Your task to perform on an android device: stop showing notifications on the lock screen Image 0: 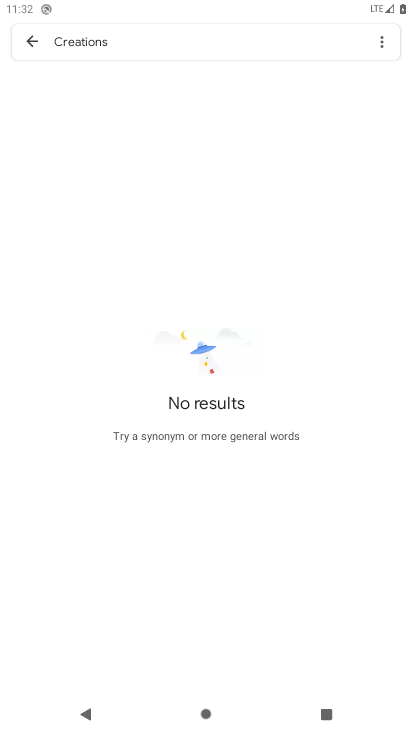
Step 0: press home button
Your task to perform on an android device: stop showing notifications on the lock screen Image 1: 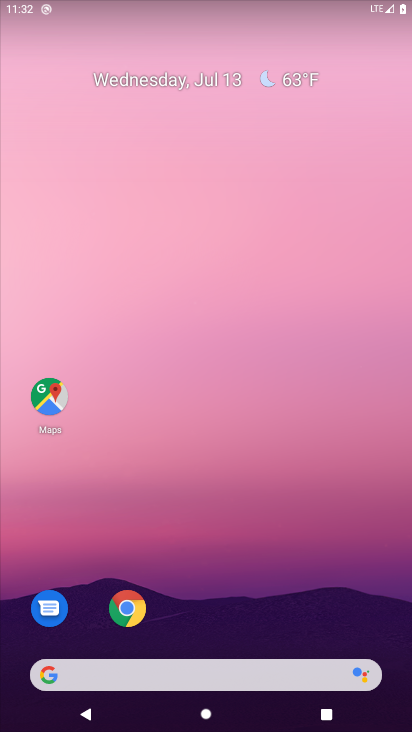
Step 1: press home button
Your task to perform on an android device: stop showing notifications on the lock screen Image 2: 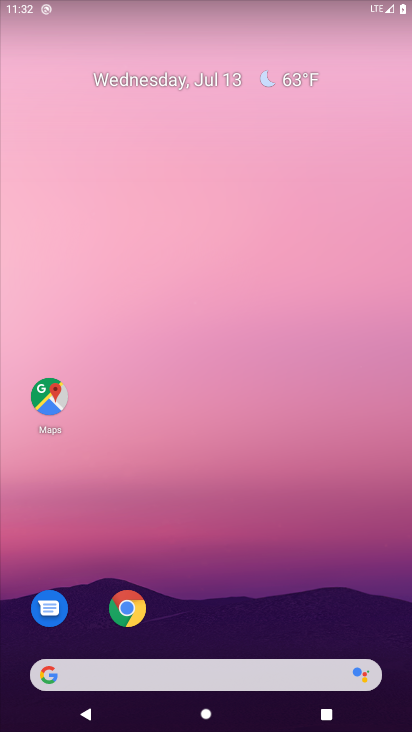
Step 2: drag from (311, 647) to (337, 61)
Your task to perform on an android device: stop showing notifications on the lock screen Image 3: 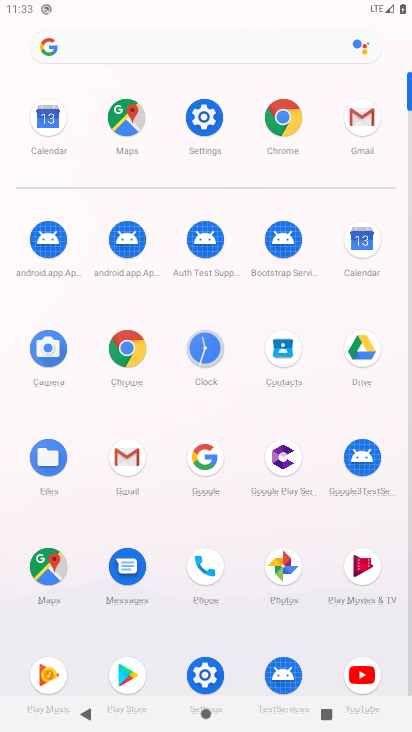
Step 3: click (204, 685)
Your task to perform on an android device: stop showing notifications on the lock screen Image 4: 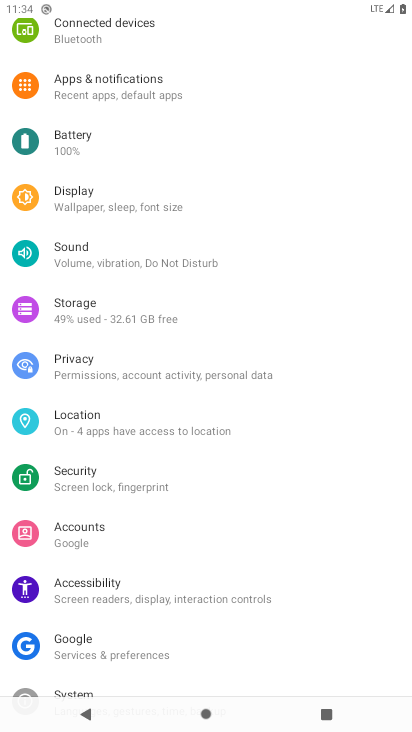
Step 4: click (108, 76)
Your task to perform on an android device: stop showing notifications on the lock screen Image 5: 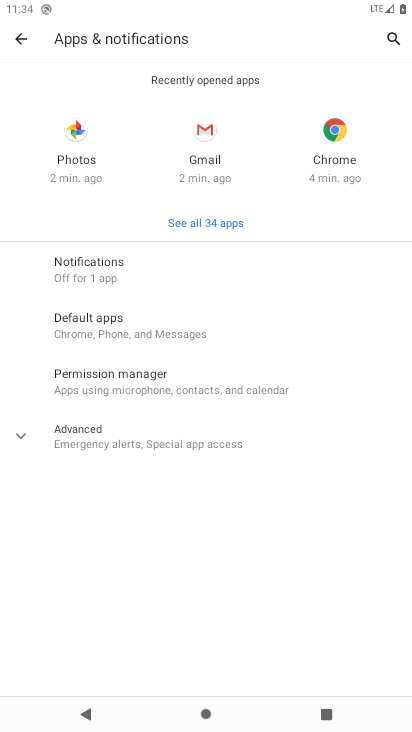
Step 5: click (112, 270)
Your task to perform on an android device: stop showing notifications on the lock screen Image 6: 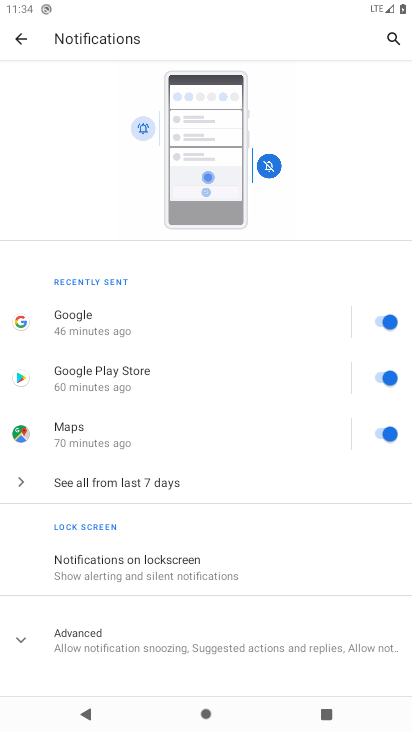
Step 6: click (119, 564)
Your task to perform on an android device: stop showing notifications on the lock screen Image 7: 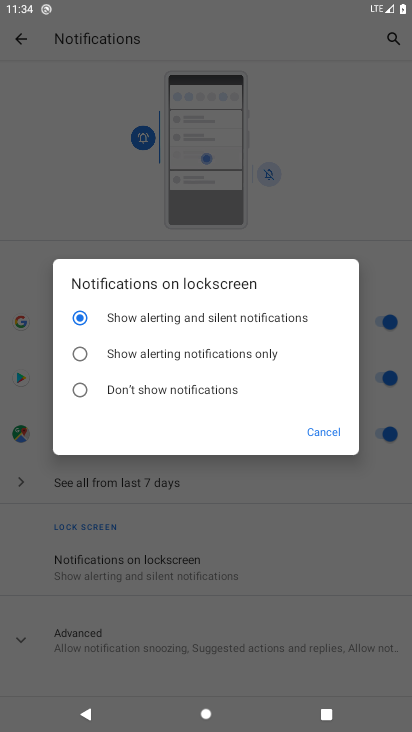
Step 7: click (177, 386)
Your task to perform on an android device: stop showing notifications on the lock screen Image 8: 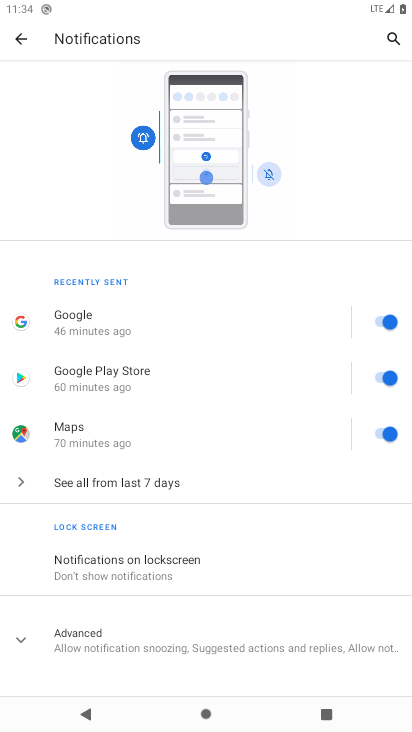
Step 8: task complete